Your task to perform on an android device: check storage Image 0: 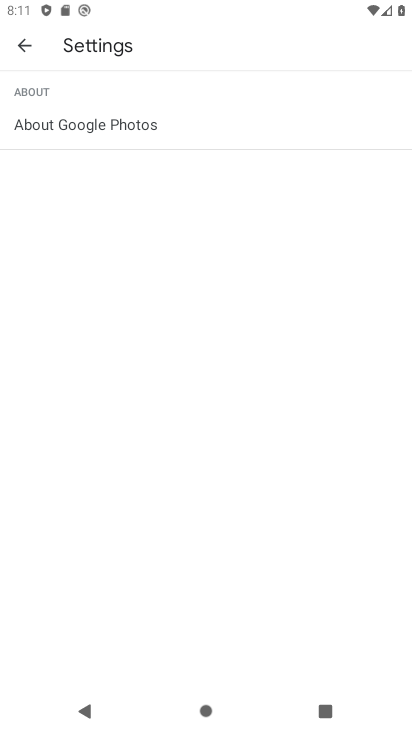
Step 0: press home button
Your task to perform on an android device: check storage Image 1: 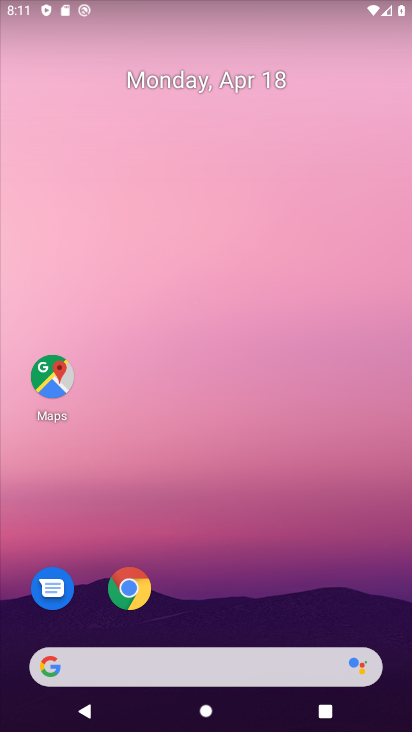
Step 1: drag from (240, 522) to (222, 24)
Your task to perform on an android device: check storage Image 2: 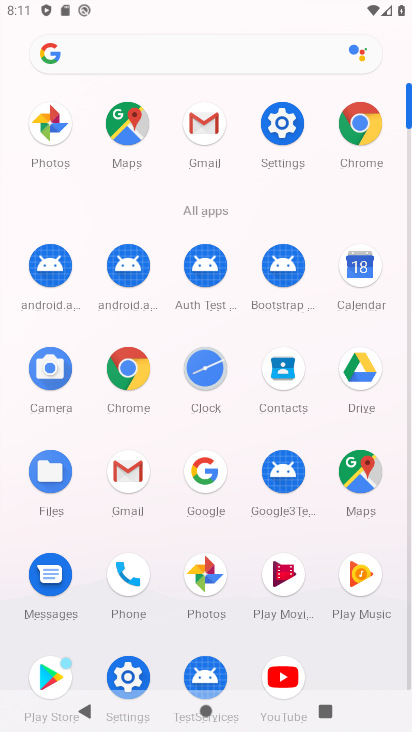
Step 2: click (286, 122)
Your task to perform on an android device: check storage Image 3: 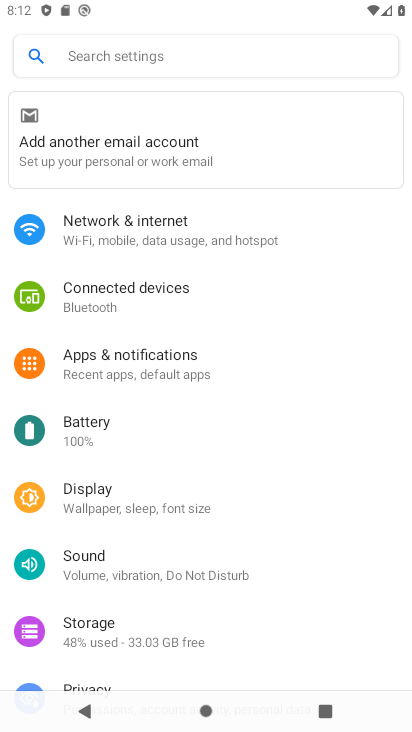
Step 3: click (101, 626)
Your task to perform on an android device: check storage Image 4: 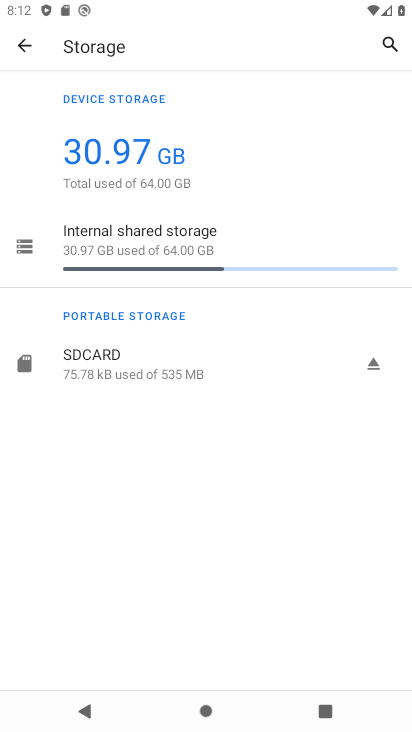
Step 4: task complete